Your task to perform on an android device: Go to battery settings Image 0: 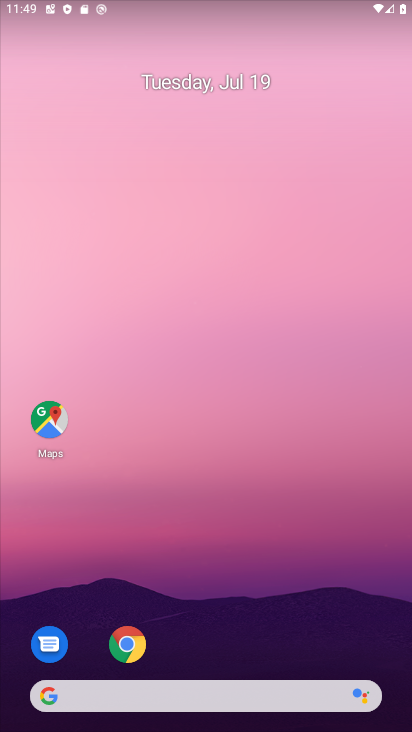
Step 0: press home button
Your task to perform on an android device: Go to battery settings Image 1: 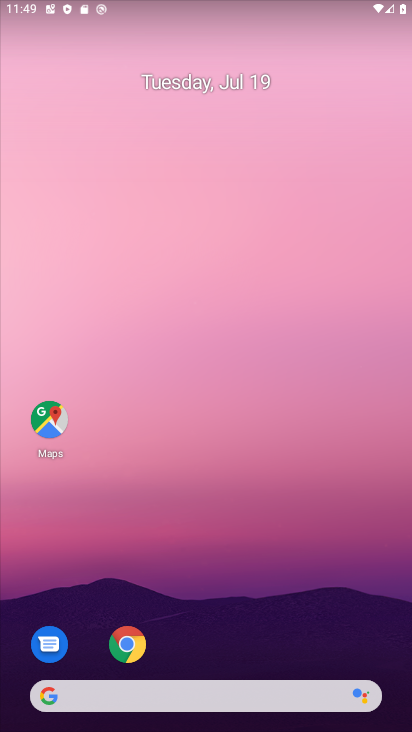
Step 1: drag from (242, 664) to (341, 1)
Your task to perform on an android device: Go to battery settings Image 2: 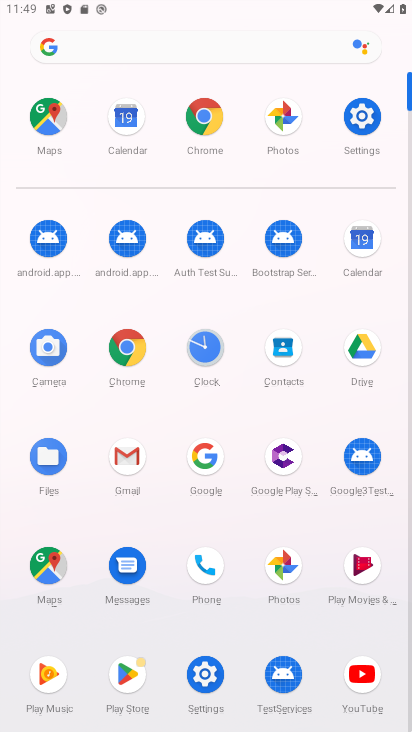
Step 2: click (203, 658)
Your task to perform on an android device: Go to battery settings Image 3: 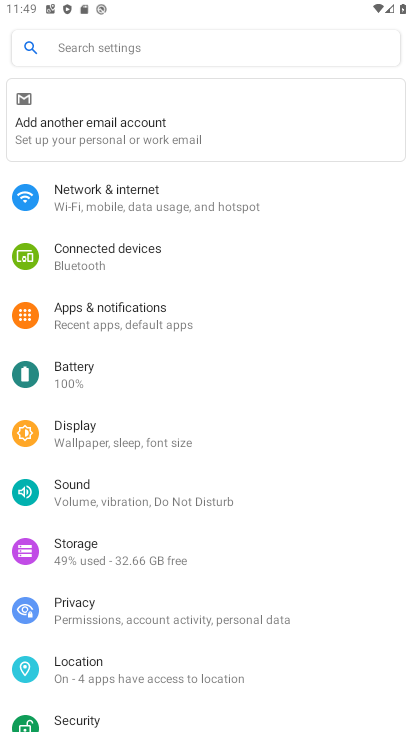
Step 3: click (192, 380)
Your task to perform on an android device: Go to battery settings Image 4: 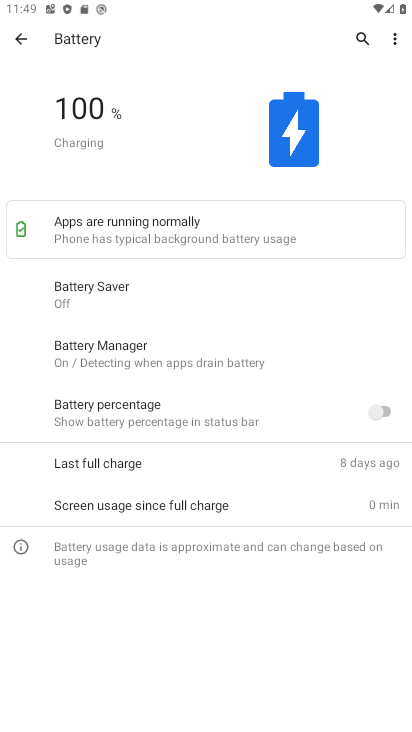
Step 4: task complete